Your task to perform on an android device: Go to wifi settings Image 0: 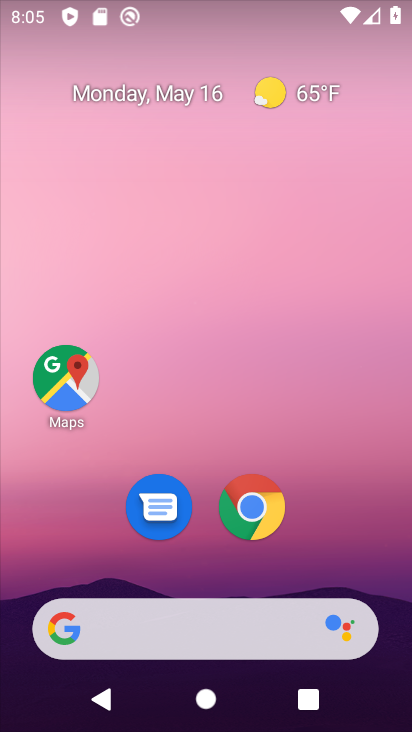
Step 0: drag from (210, 584) to (99, 4)
Your task to perform on an android device: Go to wifi settings Image 1: 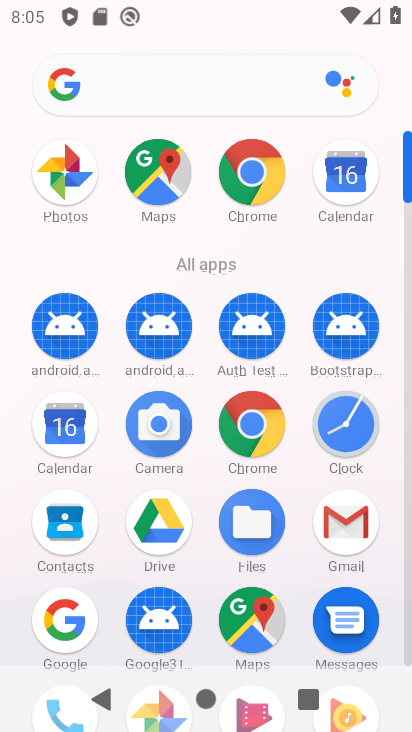
Step 1: drag from (205, 578) to (163, 68)
Your task to perform on an android device: Go to wifi settings Image 2: 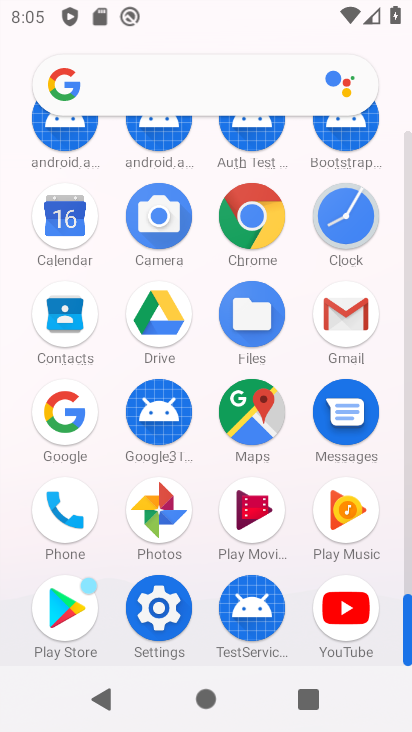
Step 2: click (162, 604)
Your task to perform on an android device: Go to wifi settings Image 3: 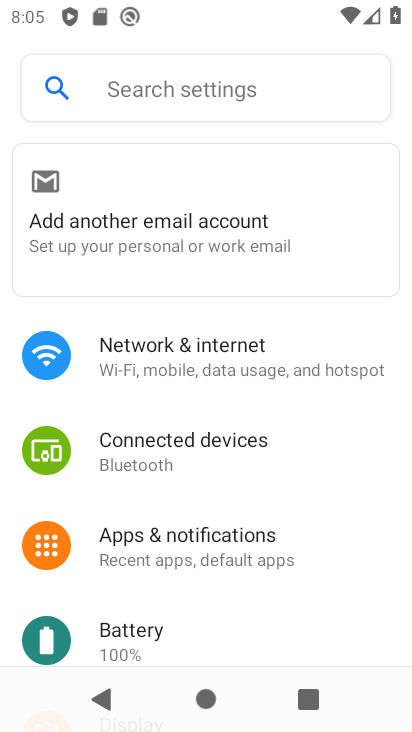
Step 3: click (182, 379)
Your task to perform on an android device: Go to wifi settings Image 4: 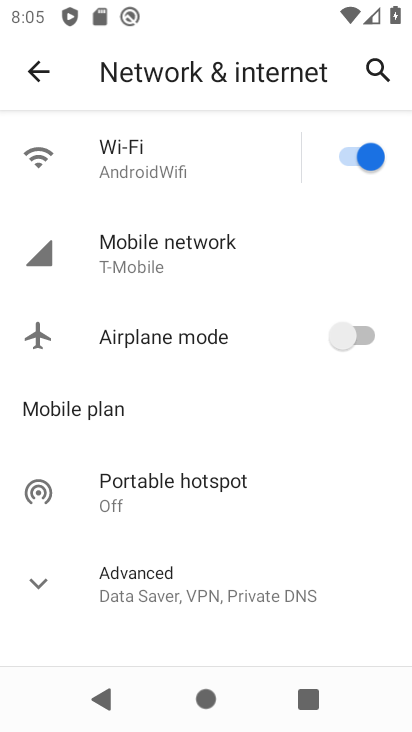
Step 4: click (150, 184)
Your task to perform on an android device: Go to wifi settings Image 5: 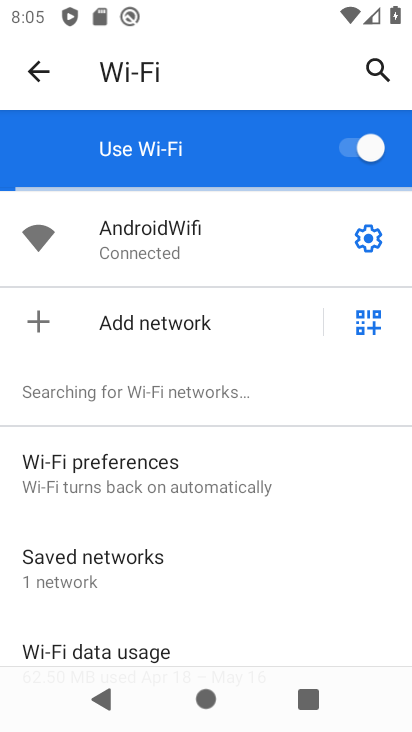
Step 5: task complete